Your task to perform on an android device: How far is the moon? Image 0: 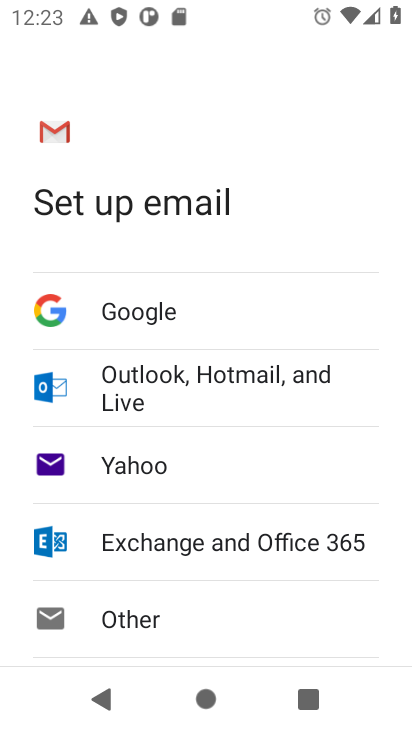
Step 0: press home button
Your task to perform on an android device: How far is the moon? Image 1: 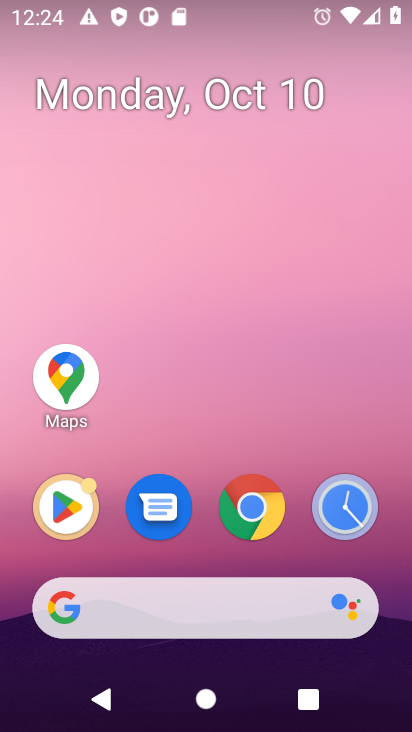
Step 1: click (252, 610)
Your task to perform on an android device: How far is the moon? Image 2: 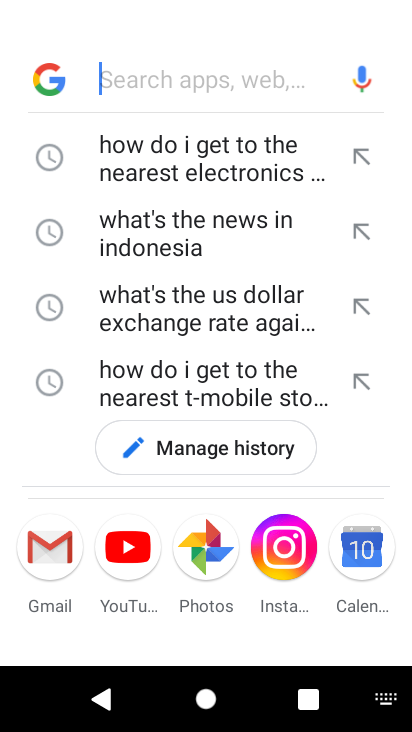
Step 2: click (209, 90)
Your task to perform on an android device: How far is the moon? Image 3: 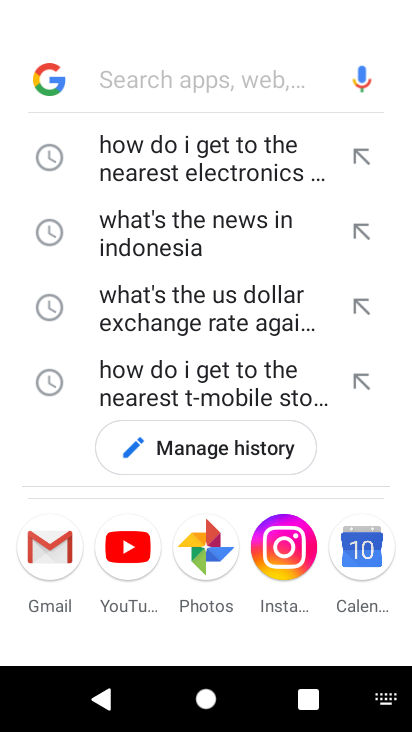
Step 3: type "How far is the moon?"
Your task to perform on an android device: How far is the moon? Image 4: 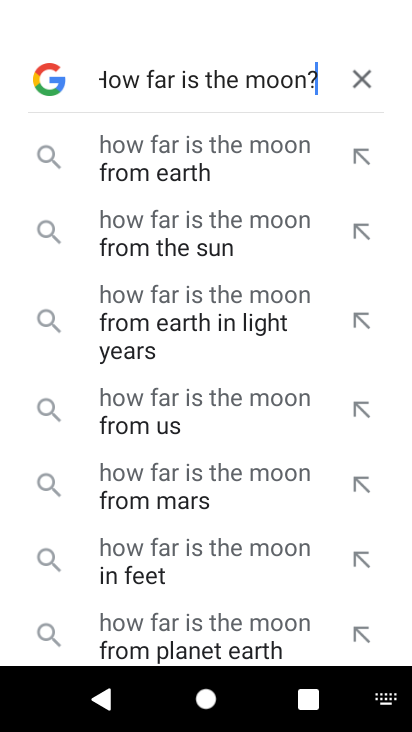
Step 4: press enter
Your task to perform on an android device: How far is the moon? Image 5: 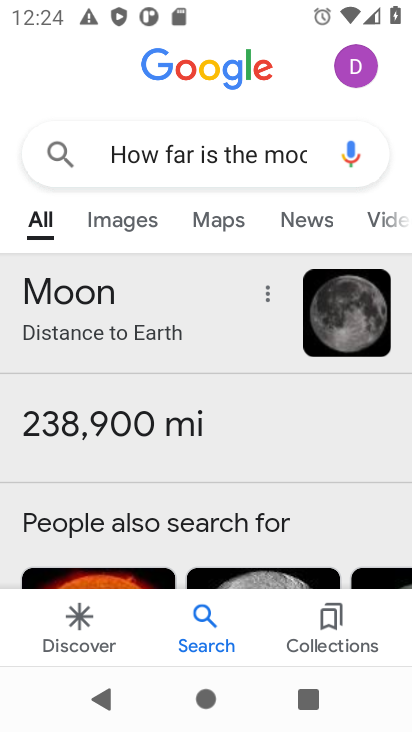
Step 5: task complete